Your task to perform on an android device: empty trash in google photos Image 0: 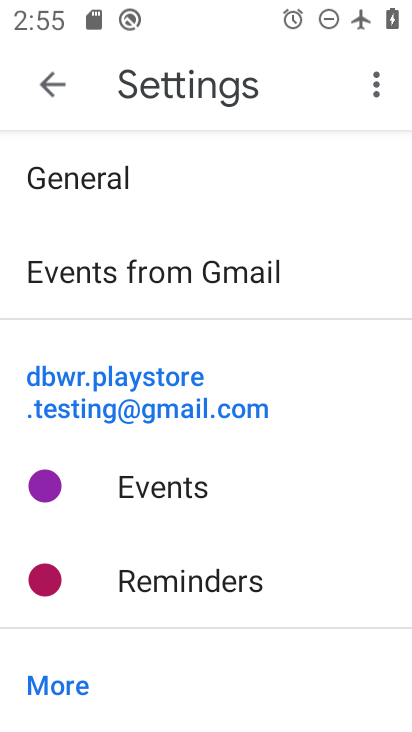
Step 0: press home button
Your task to perform on an android device: empty trash in google photos Image 1: 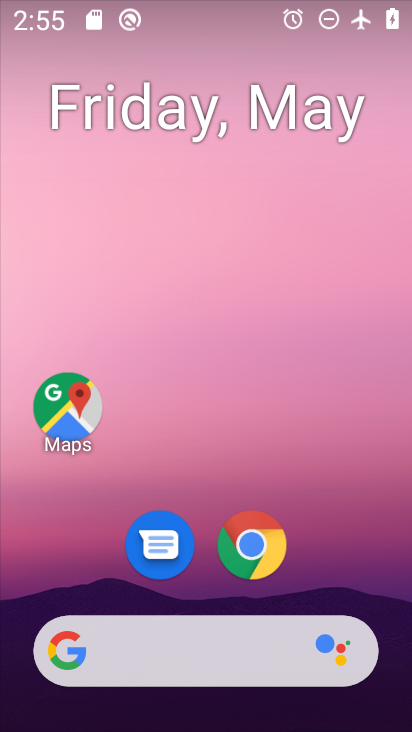
Step 1: drag from (321, 542) to (319, 258)
Your task to perform on an android device: empty trash in google photos Image 2: 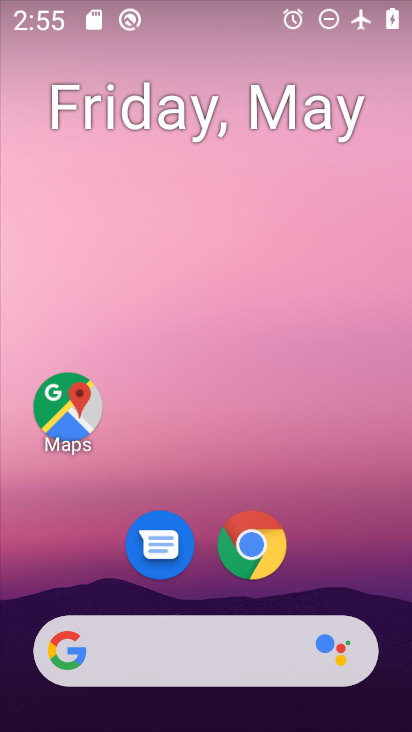
Step 2: drag from (149, 581) to (163, 252)
Your task to perform on an android device: empty trash in google photos Image 3: 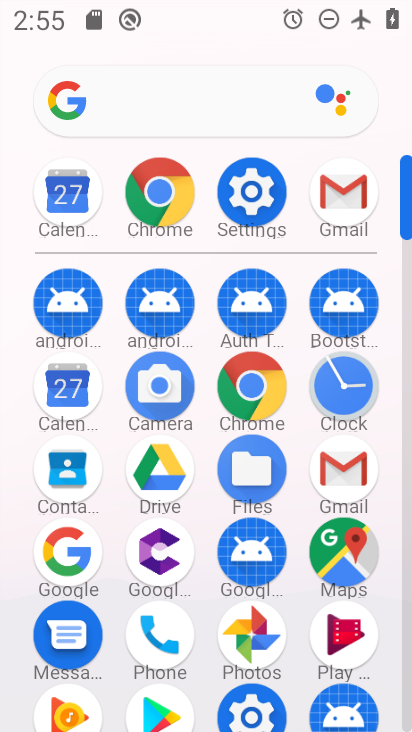
Step 3: click (248, 626)
Your task to perform on an android device: empty trash in google photos Image 4: 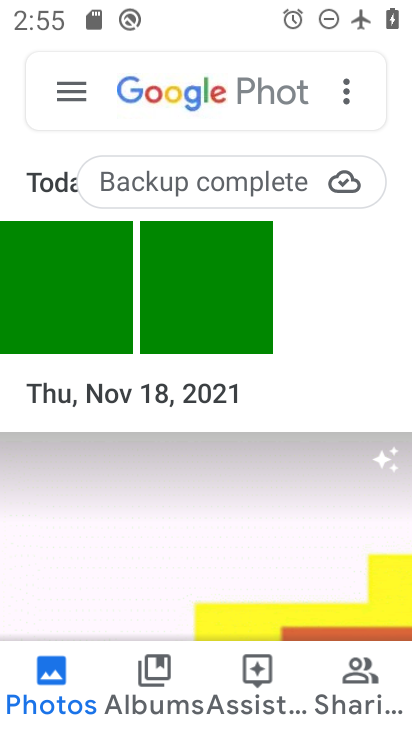
Step 4: click (70, 84)
Your task to perform on an android device: empty trash in google photos Image 5: 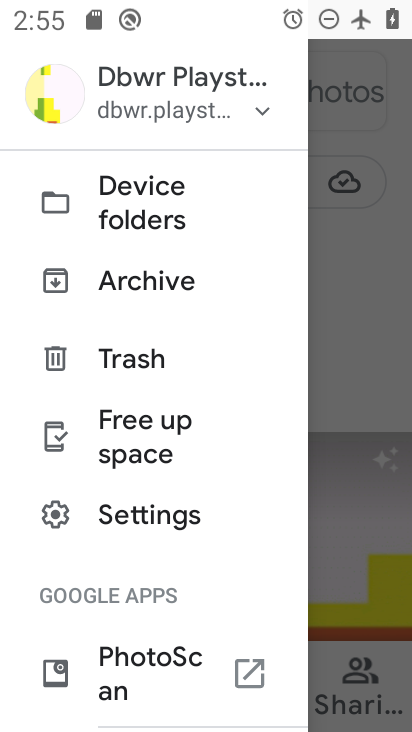
Step 5: click (138, 347)
Your task to perform on an android device: empty trash in google photos Image 6: 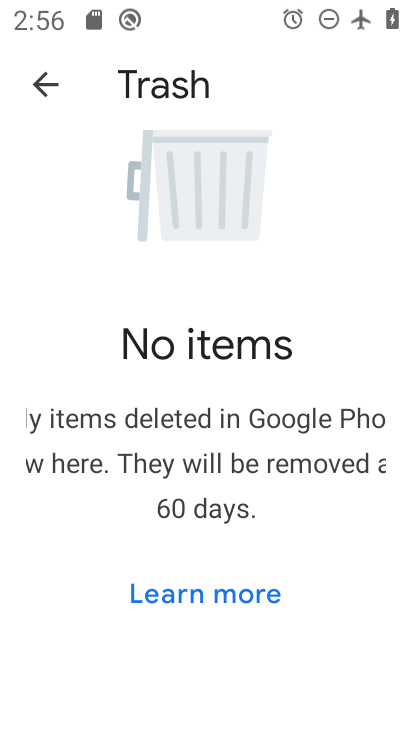
Step 6: task complete